Your task to perform on an android device: Search for sushi restaurants on Maps Image 0: 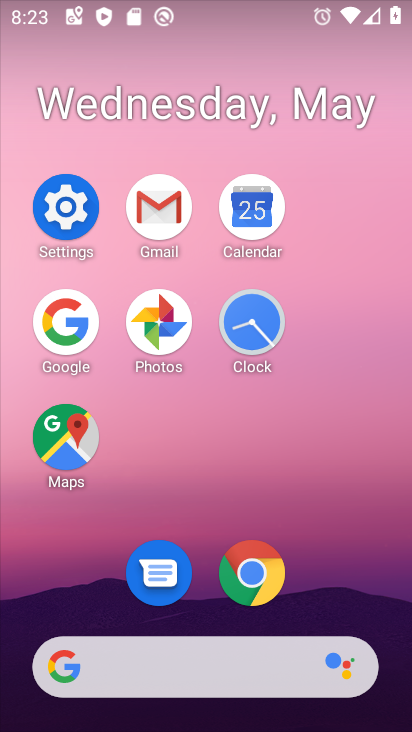
Step 0: click (90, 441)
Your task to perform on an android device: Search for sushi restaurants on Maps Image 1: 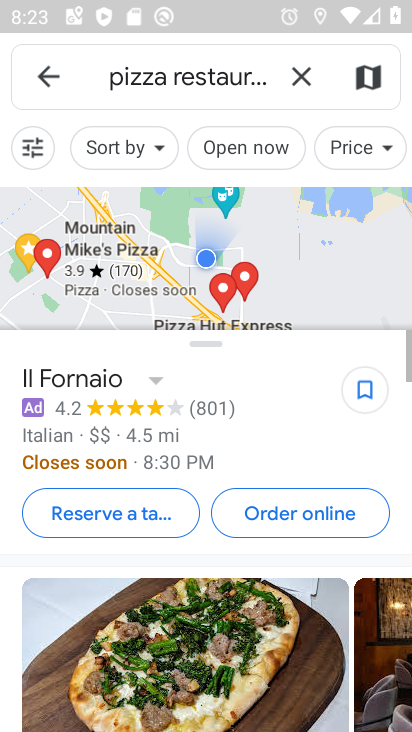
Step 1: click (307, 78)
Your task to perform on an android device: Search for sushi restaurants on Maps Image 2: 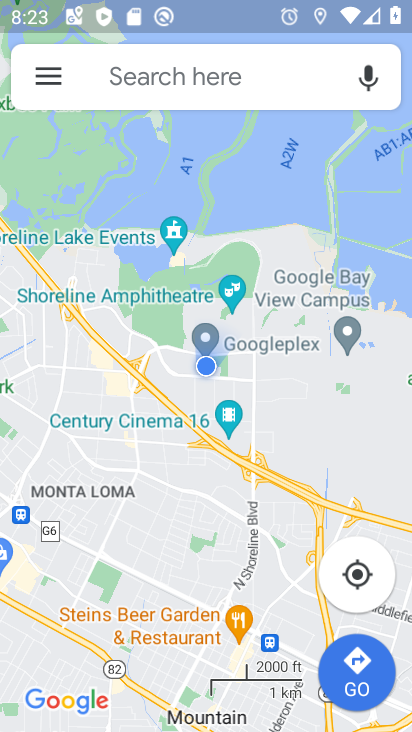
Step 2: click (203, 81)
Your task to perform on an android device: Search for sushi restaurants on Maps Image 3: 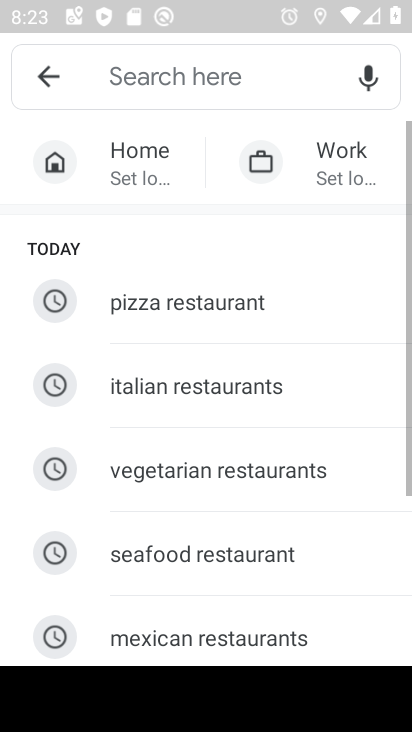
Step 3: drag from (243, 496) to (207, 128)
Your task to perform on an android device: Search for sushi restaurants on Maps Image 4: 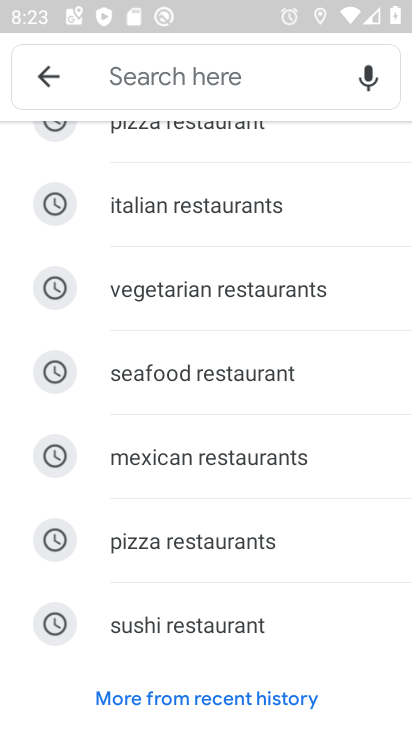
Step 4: click (233, 614)
Your task to perform on an android device: Search for sushi restaurants on Maps Image 5: 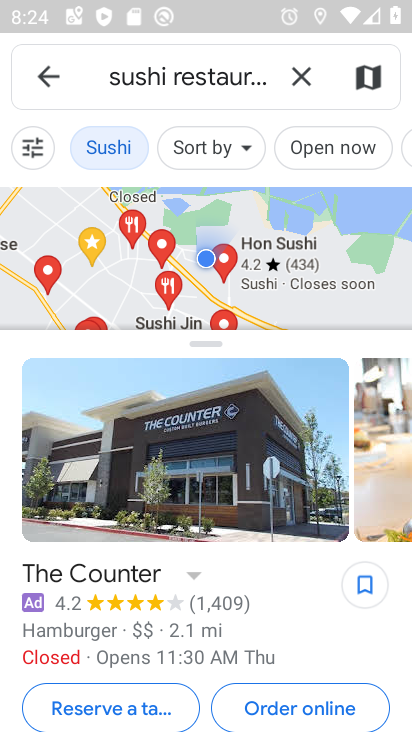
Step 5: task complete